Your task to perform on an android device: read, delete, or share a saved page in the chrome app Image 0: 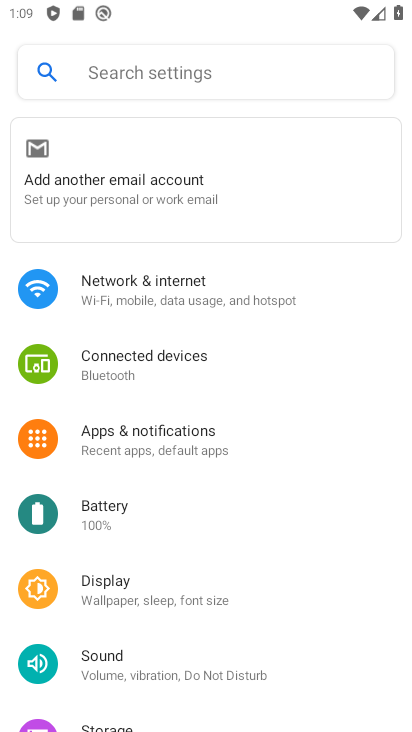
Step 0: press home button
Your task to perform on an android device: read, delete, or share a saved page in the chrome app Image 1: 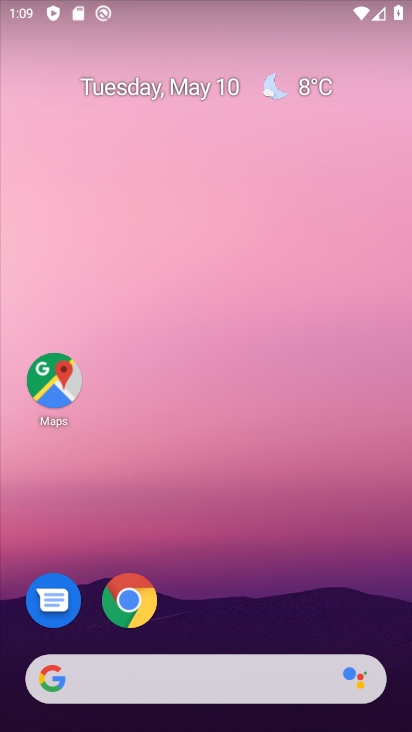
Step 1: click (124, 595)
Your task to perform on an android device: read, delete, or share a saved page in the chrome app Image 2: 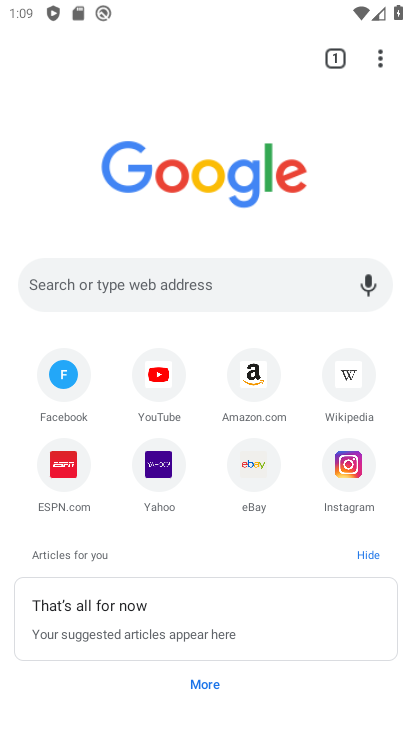
Step 2: click (383, 52)
Your task to perform on an android device: read, delete, or share a saved page in the chrome app Image 3: 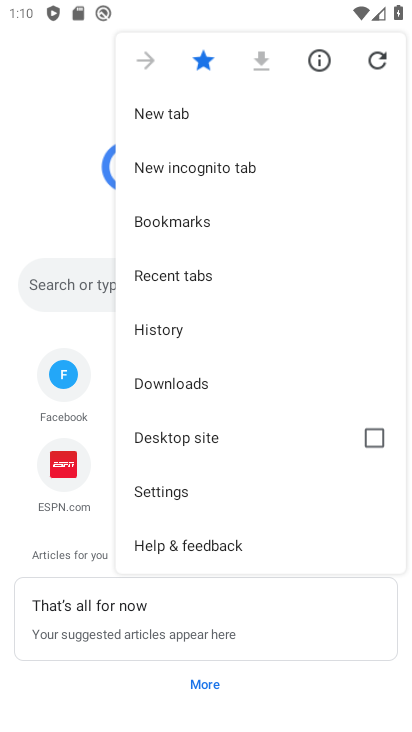
Step 3: click (221, 377)
Your task to perform on an android device: read, delete, or share a saved page in the chrome app Image 4: 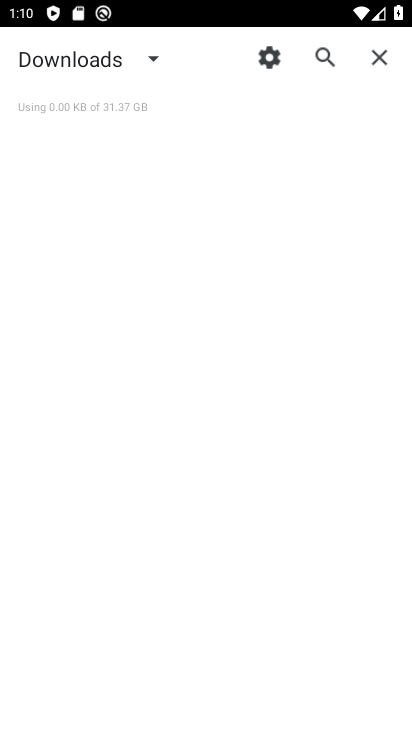
Step 4: task complete